Your task to perform on an android device: Is it going to rain this weekend? Image 0: 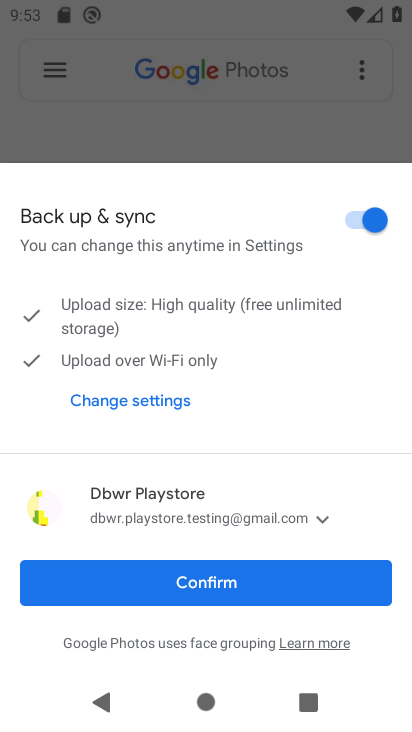
Step 0: press home button
Your task to perform on an android device: Is it going to rain this weekend? Image 1: 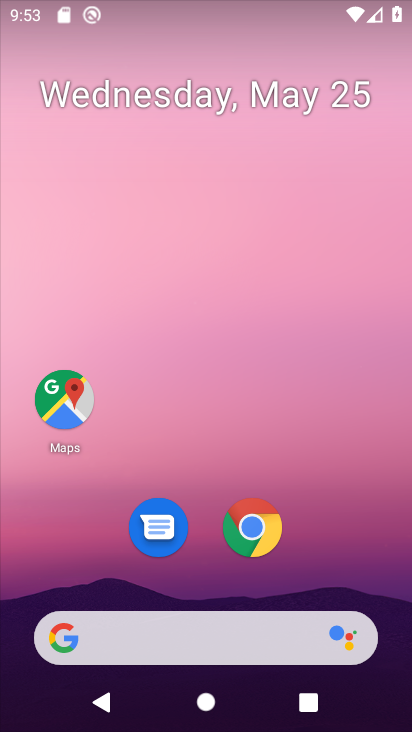
Step 1: drag from (371, 598) to (344, 113)
Your task to perform on an android device: Is it going to rain this weekend? Image 2: 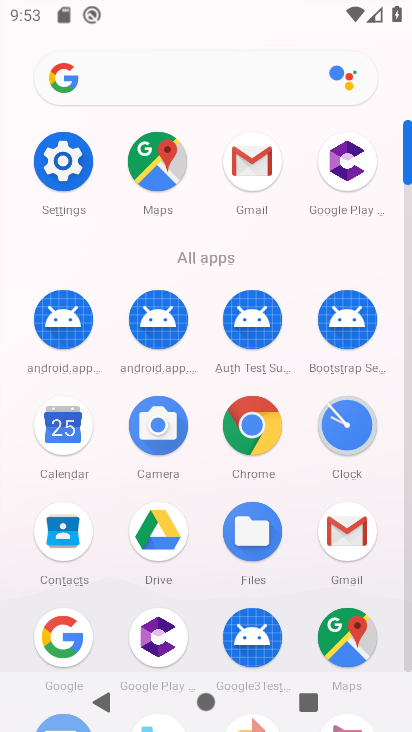
Step 2: drag from (198, 525) to (201, 205)
Your task to perform on an android device: Is it going to rain this weekend? Image 3: 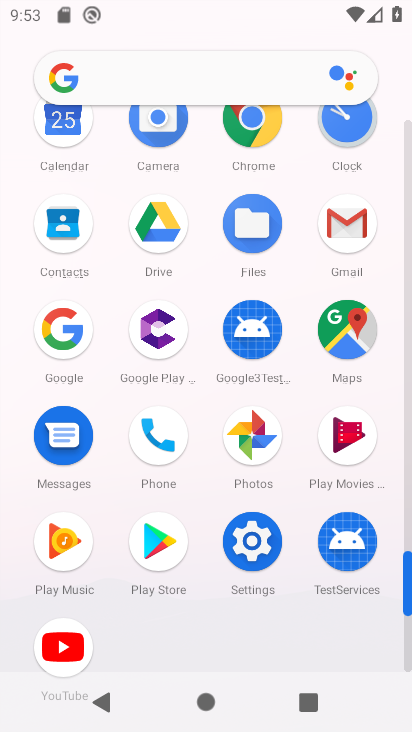
Step 3: drag from (195, 270) to (177, 706)
Your task to perform on an android device: Is it going to rain this weekend? Image 4: 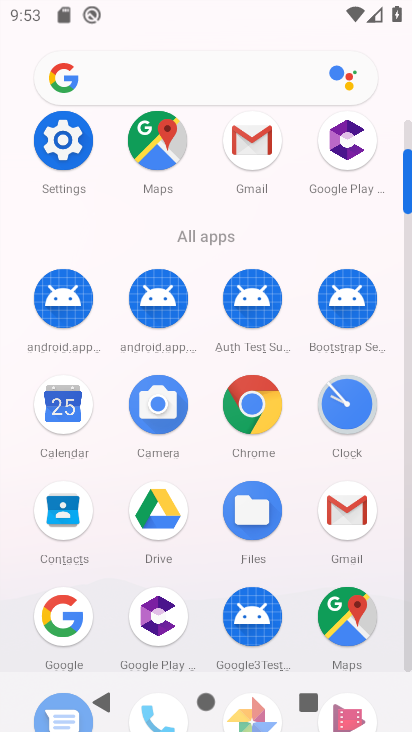
Step 4: drag from (210, 199) to (170, 724)
Your task to perform on an android device: Is it going to rain this weekend? Image 5: 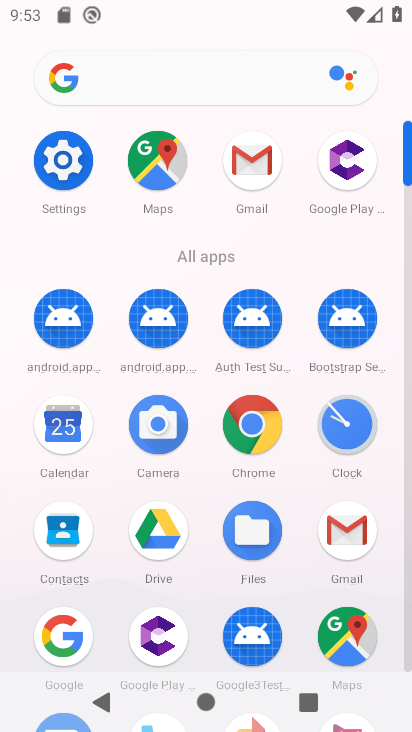
Step 5: drag from (216, 209) to (156, 718)
Your task to perform on an android device: Is it going to rain this weekend? Image 6: 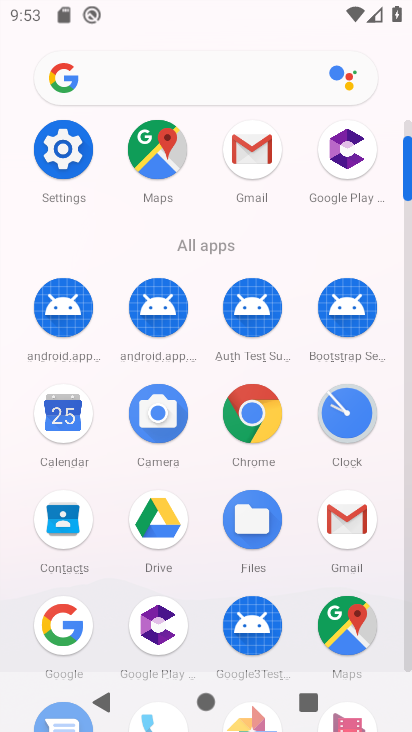
Step 6: press home button
Your task to perform on an android device: Is it going to rain this weekend? Image 7: 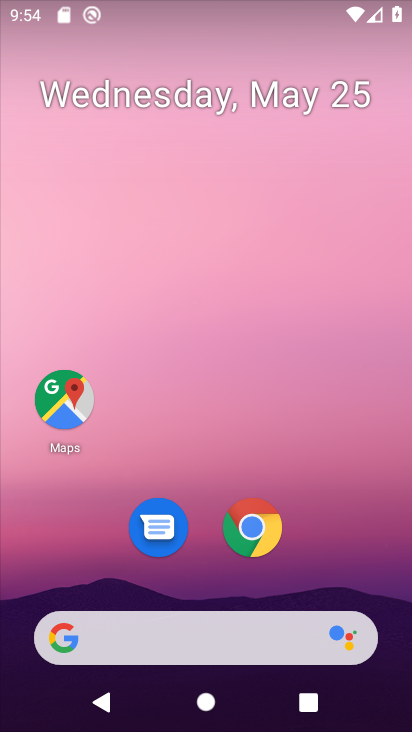
Step 7: drag from (4, 161) to (410, 254)
Your task to perform on an android device: Is it going to rain this weekend? Image 8: 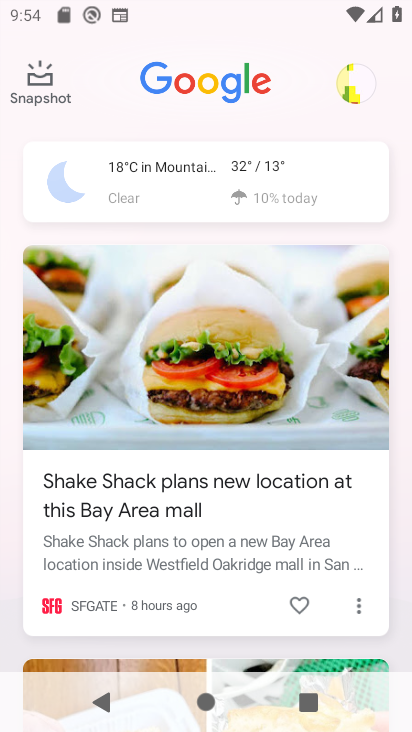
Step 8: click (268, 182)
Your task to perform on an android device: Is it going to rain this weekend? Image 9: 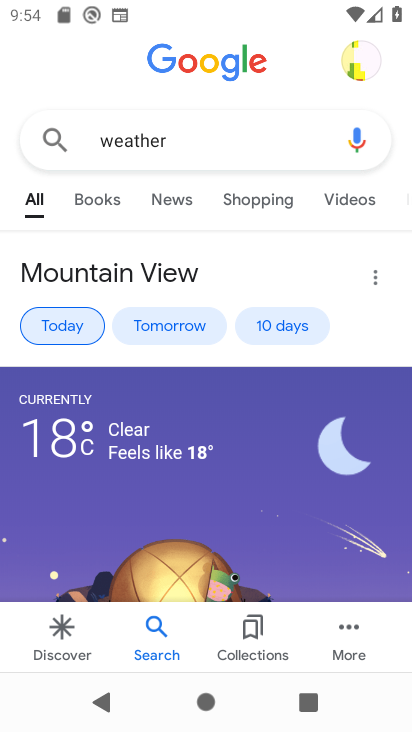
Step 9: click (261, 328)
Your task to perform on an android device: Is it going to rain this weekend? Image 10: 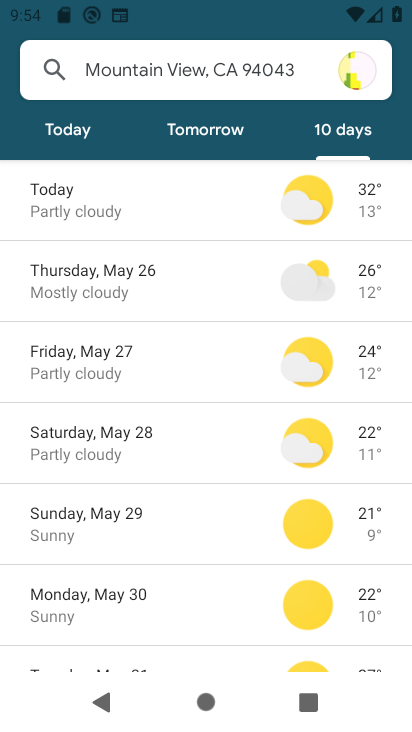
Step 10: task complete